Your task to perform on an android device: turn off airplane mode Image 0: 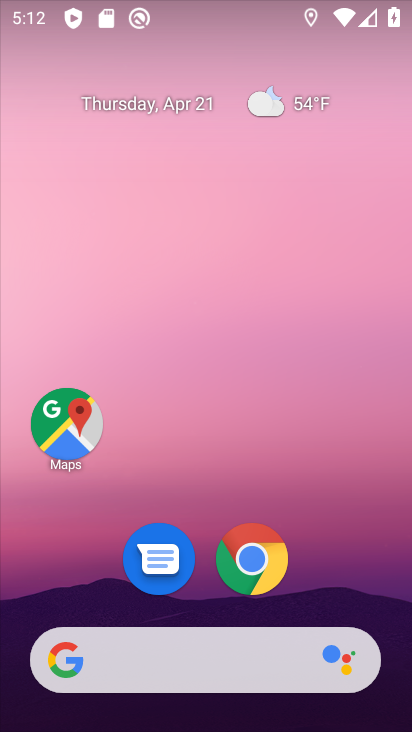
Step 0: drag from (330, 535) to (388, 4)
Your task to perform on an android device: turn off airplane mode Image 1: 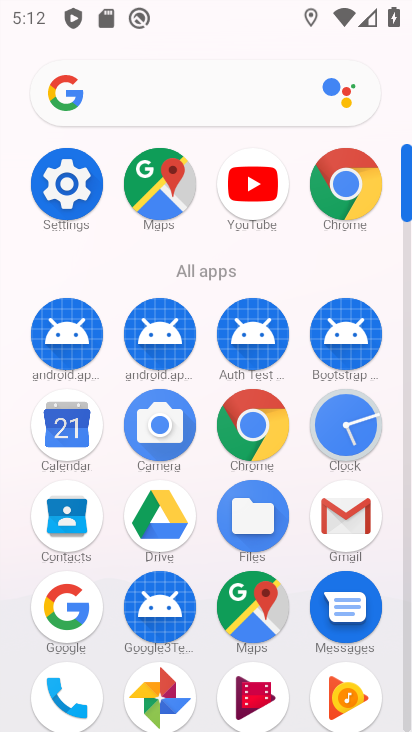
Step 1: click (45, 193)
Your task to perform on an android device: turn off airplane mode Image 2: 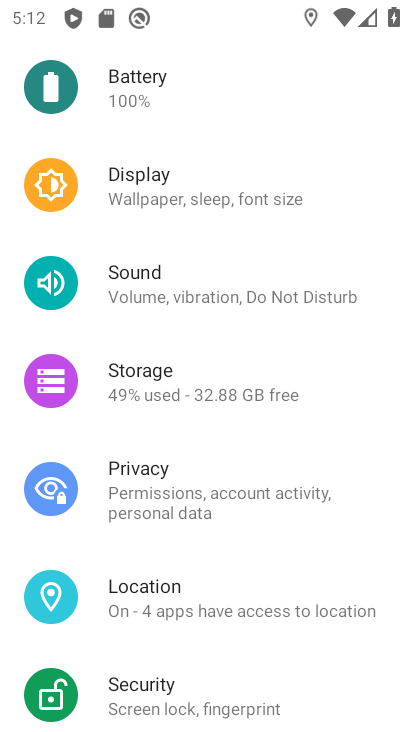
Step 2: drag from (217, 133) to (219, 482)
Your task to perform on an android device: turn off airplane mode Image 3: 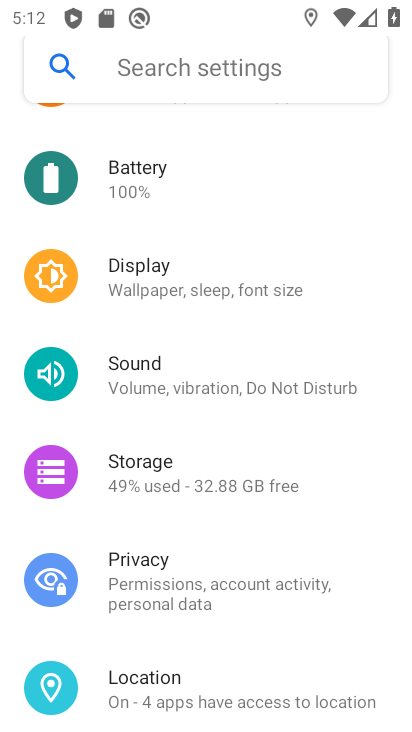
Step 3: drag from (226, 309) to (251, 529)
Your task to perform on an android device: turn off airplane mode Image 4: 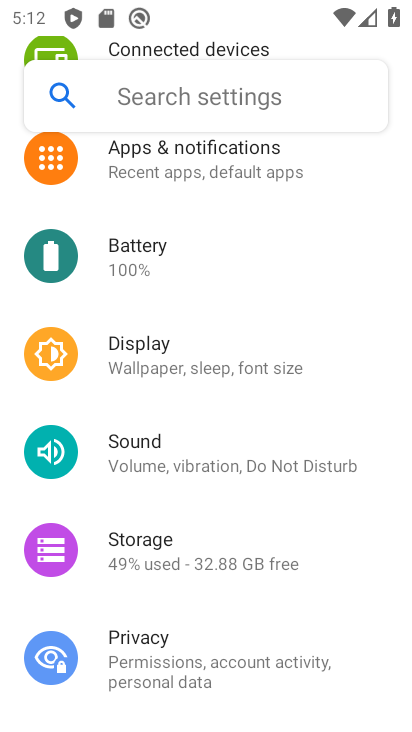
Step 4: drag from (254, 326) to (287, 582)
Your task to perform on an android device: turn off airplane mode Image 5: 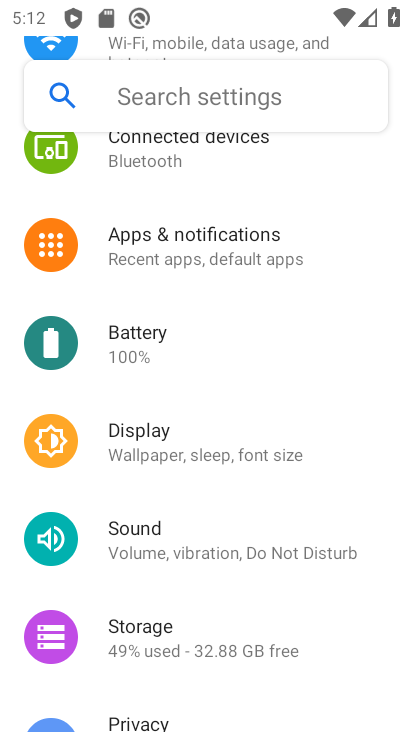
Step 5: drag from (306, 227) to (308, 597)
Your task to perform on an android device: turn off airplane mode Image 6: 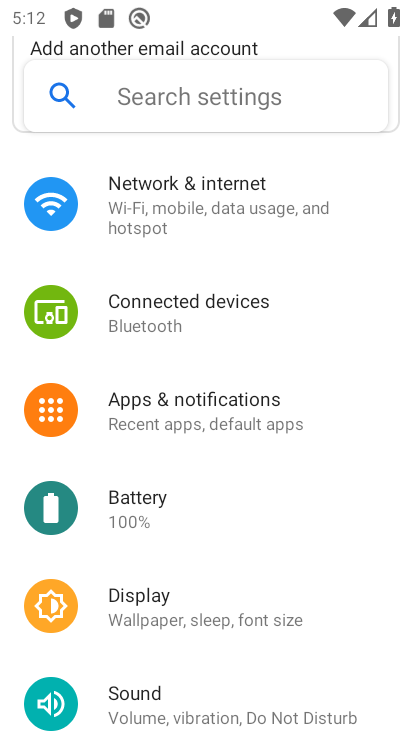
Step 6: drag from (258, 242) to (291, 621)
Your task to perform on an android device: turn off airplane mode Image 7: 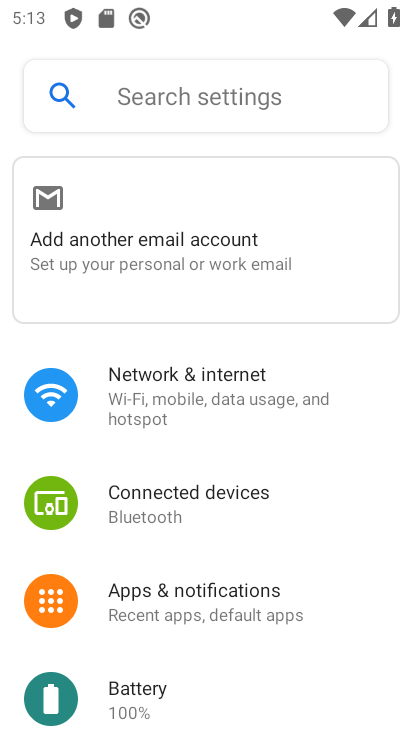
Step 7: click (193, 389)
Your task to perform on an android device: turn off airplane mode Image 8: 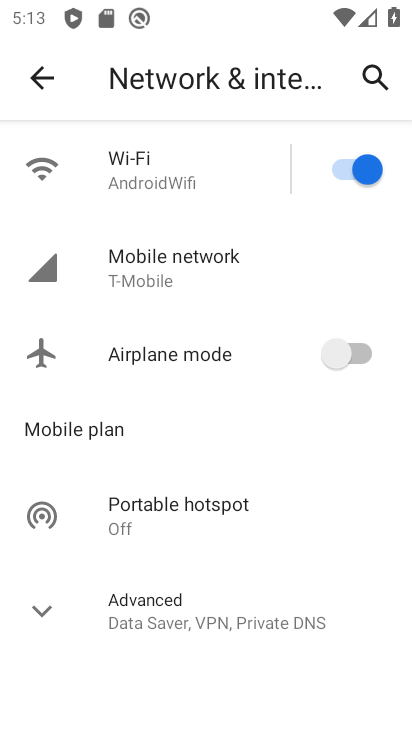
Step 8: task complete